Your task to perform on an android device: install app "Microsoft Authenticator" Image 0: 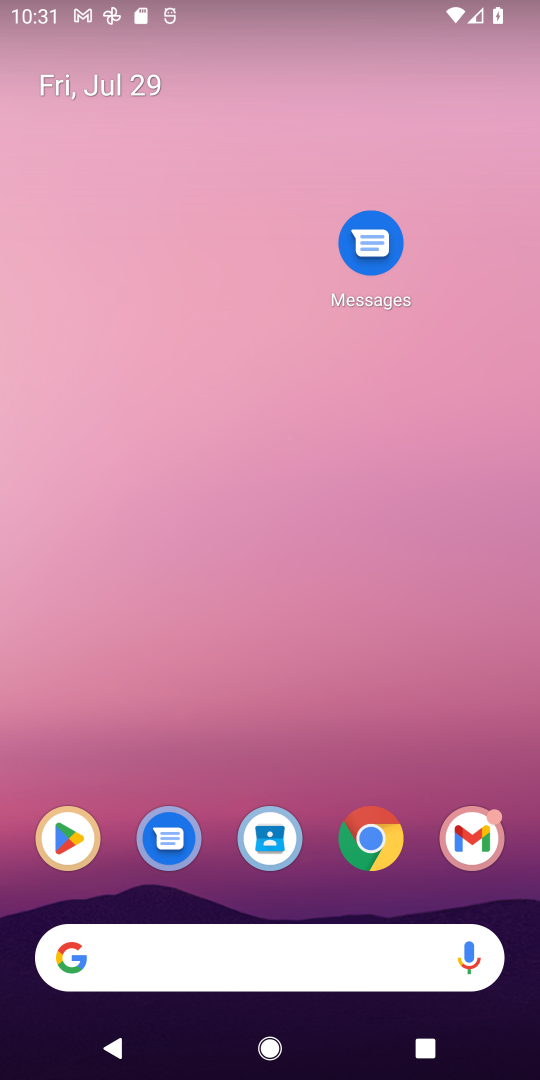
Step 0: click (69, 861)
Your task to perform on an android device: install app "Microsoft Authenticator" Image 1: 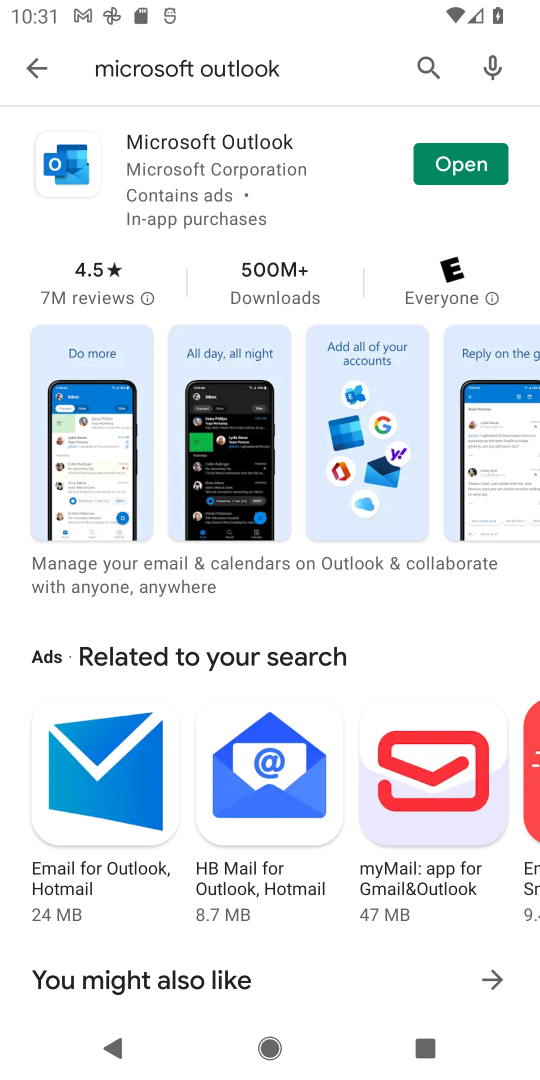
Step 1: click (251, 69)
Your task to perform on an android device: install app "Microsoft Authenticator" Image 2: 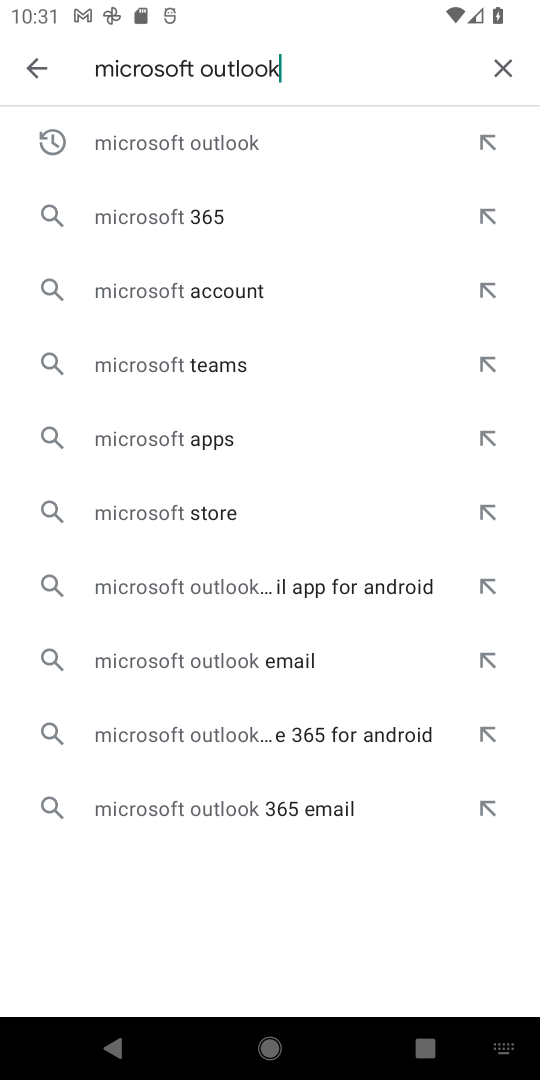
Step 2: click (239, 65)
Your task to perform on an android device: install app "Microsoft Authenticator" Image 3: 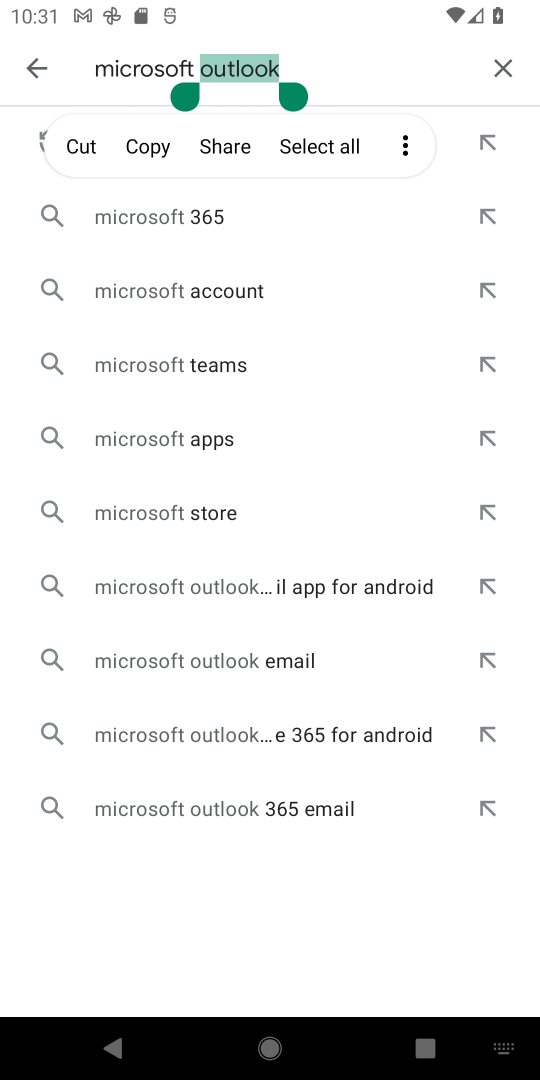
Step 3: type "Authenticator"
Your task to perform on an android device: install app "Microsoft Authenticator" Image 4: 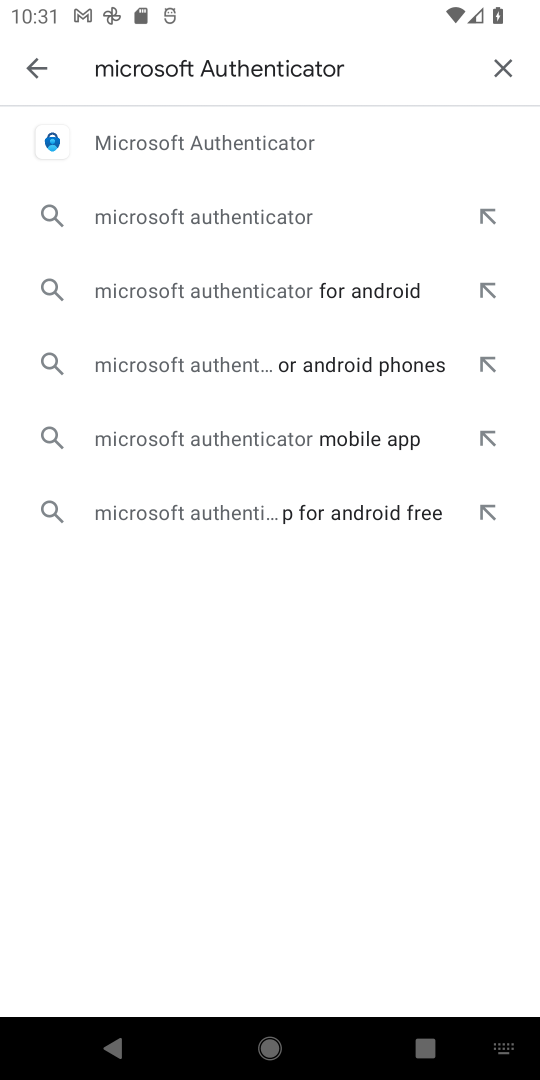
Step 4: click (257, 164)
Your task to perform on an android device: install app "Microsoft Authenticator" Image 5: 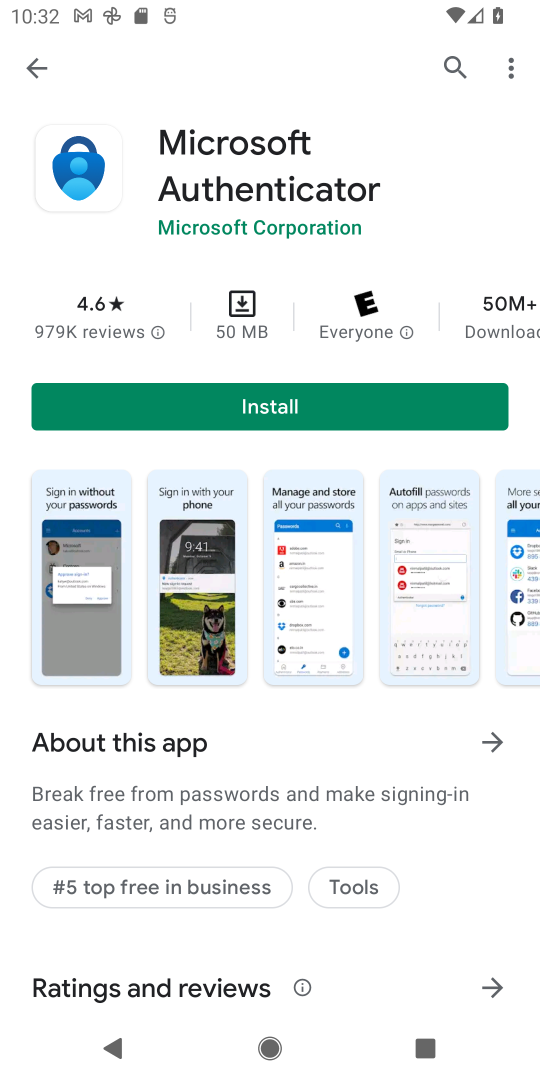
Step 5: click (331, 417)
Your task to perform on an android device: install app "Microsoft Authenticator" Image 6: 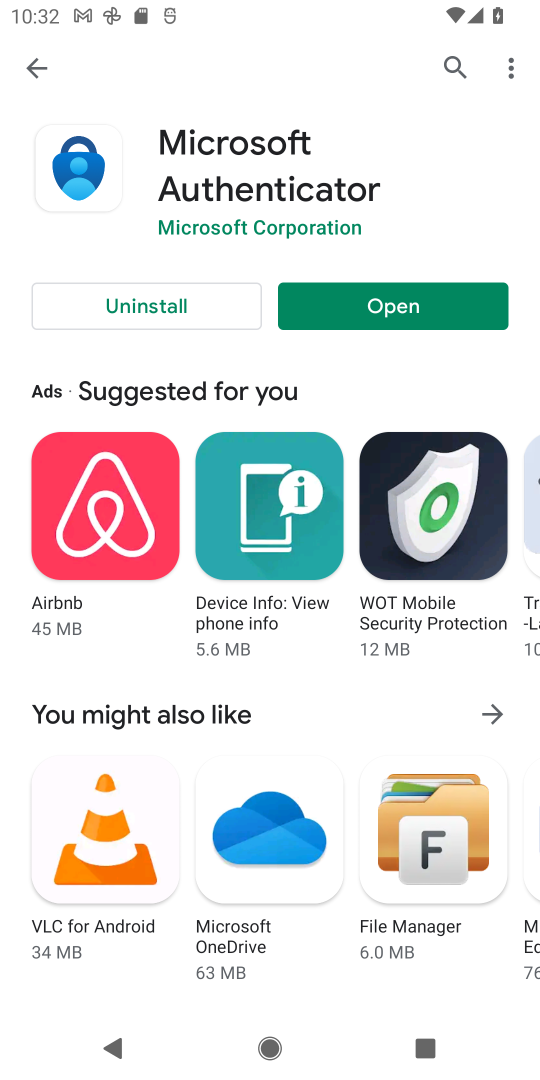
Step 6: task complete